Your task to perform on an android device: open sync settings in chrome Image 0: 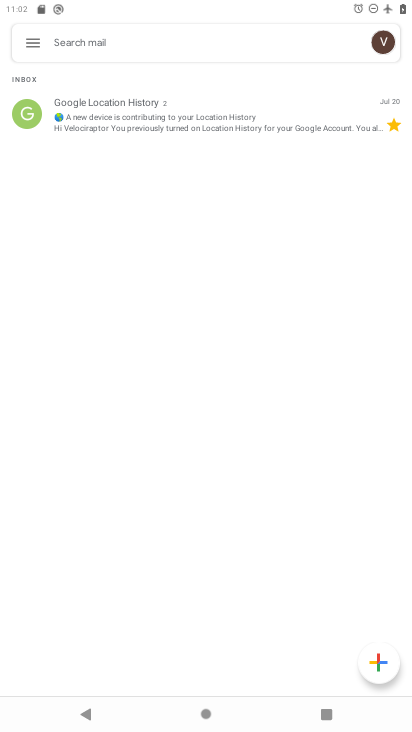
Step 0: press home button
Your task to perform on an android device: open sync settings in chrome Image 1: 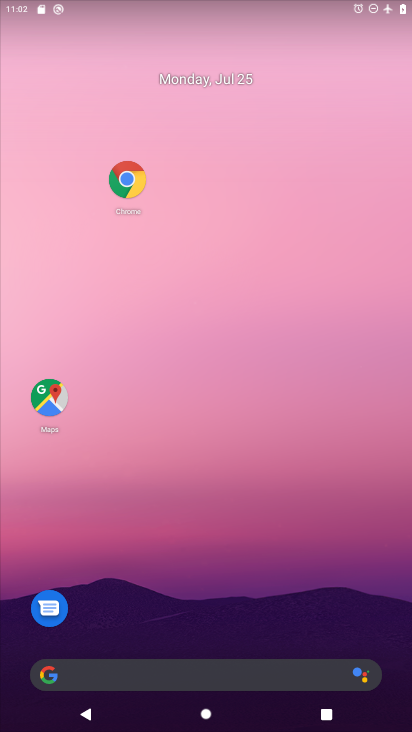
Step 1: click (134, 175)
Your task to perform on an android device: open sync settings in chrome Image 2: 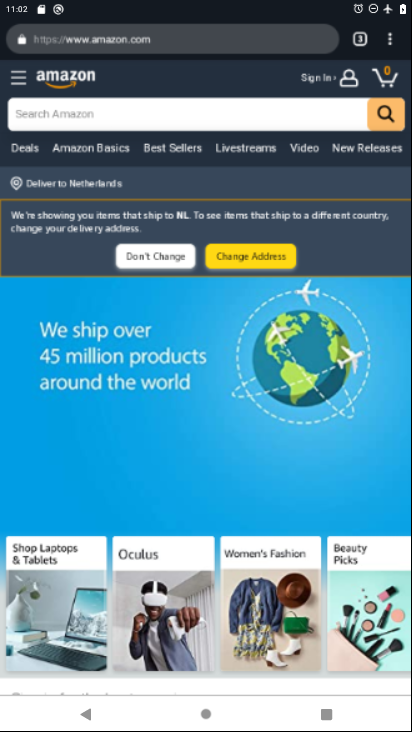
Step 2: click (392, 35)
Your task to perform on an android device: open sync settings in chrome Image 3: 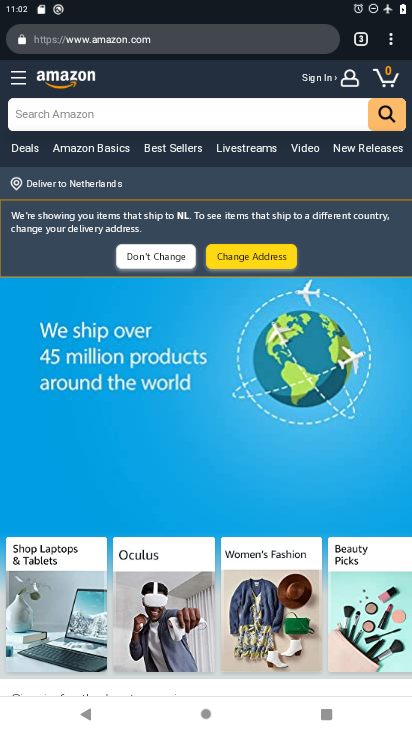
Step 3: click (394, 43)
Your task to perform on an android device: open sync settings in chrome Image 4: 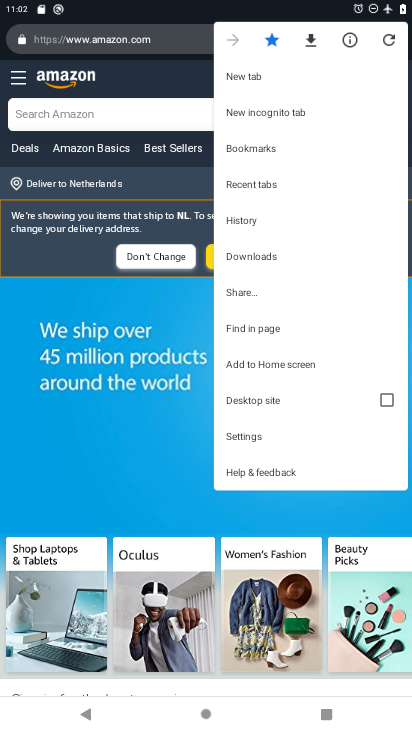
Step 4: click (286, 430)
Your task to perform on an android device: open sync settings in chrome Image 5: 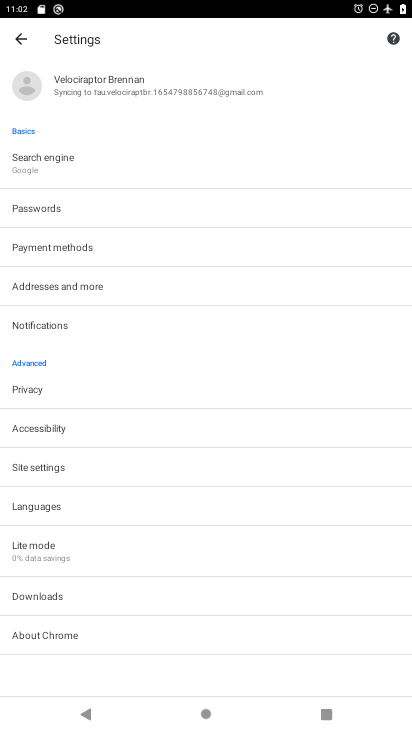
Step 5: click (76, 84)
Your task to perform on an android device: open sync settings in chrome Image 6: 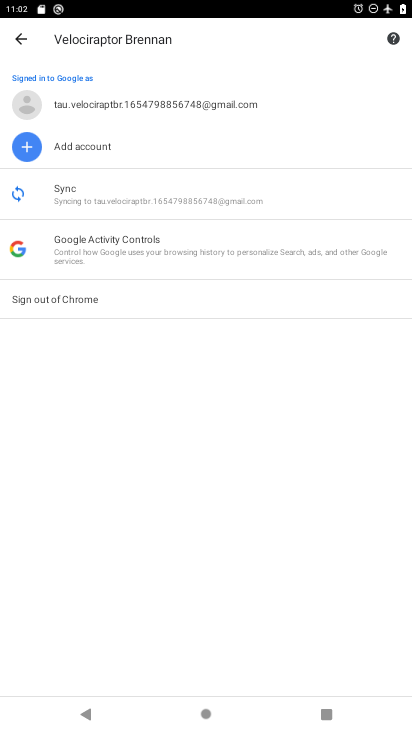
Step 6: task complete